Your task to perform on an android device: delete location history Image 0: 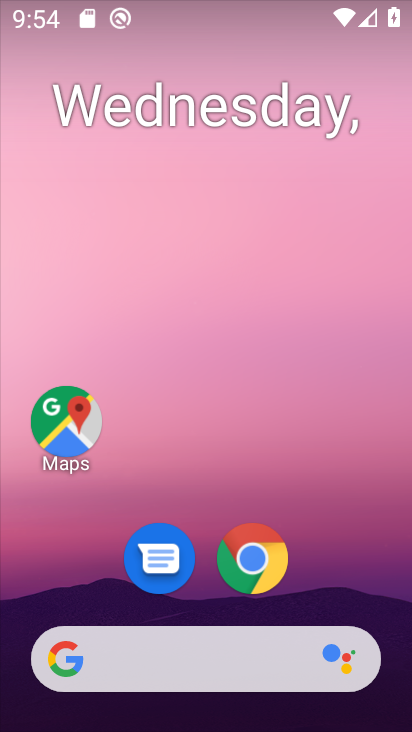
Step 0: drag from (380, 585) to (379, 105)
Your task to perform on an android device: delete location history Image 1: 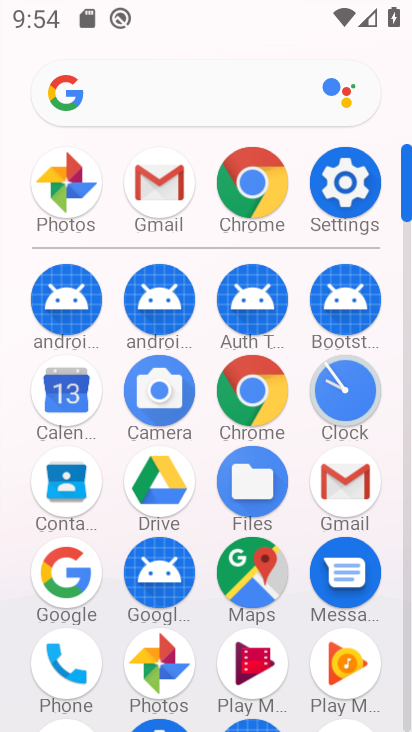
Step 1: click (249, 570)
Your task to perform on an android device: delete location history Image 2: 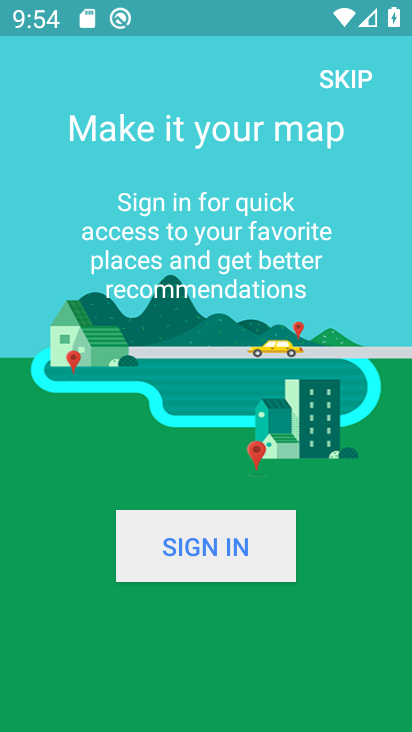
Step 2: click (347, 79)
Your task to perform on an android device: delete location history Image 3: 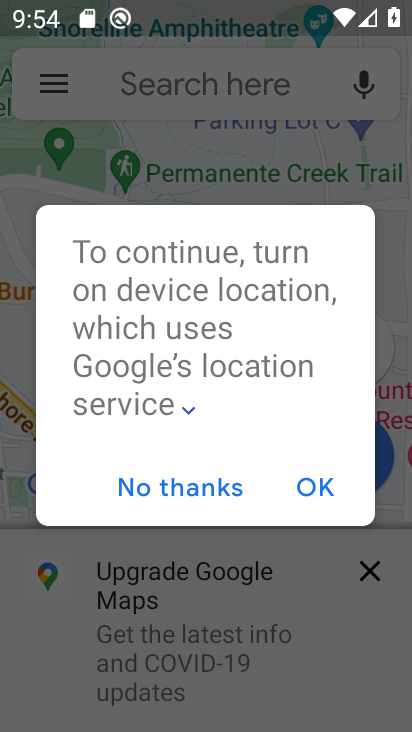
Step 3: click (205, 497)
Your task to perform on an android device: delete location history Image 4: 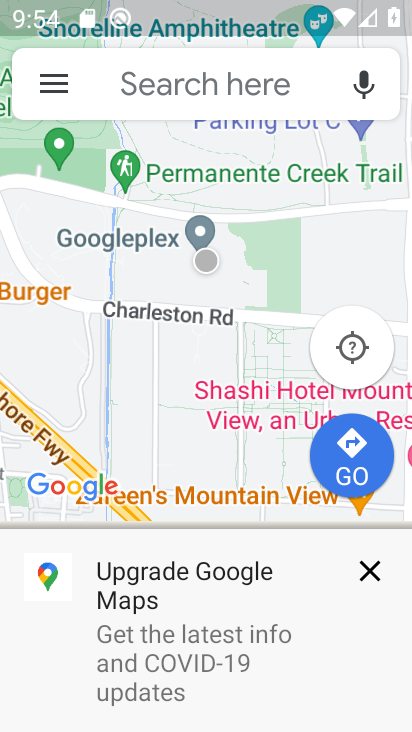
Step 4: click (57, 81)
Your task to perform on an android device: delete location history Image 5: 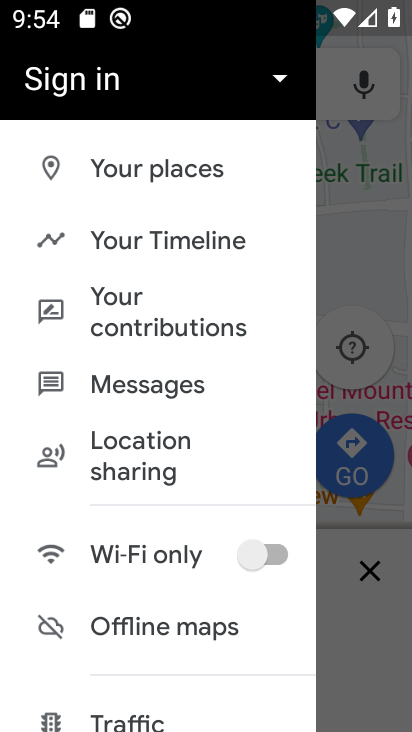
Step 5: click (143, 245)
Your task to perform on an android device: delete location history Image 6: 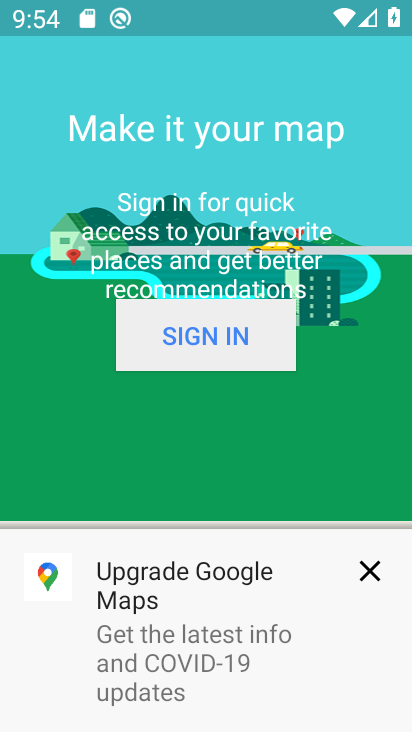
Step 6: click (368, 572)
Your task to perform on an android device: delete location history Image 7: 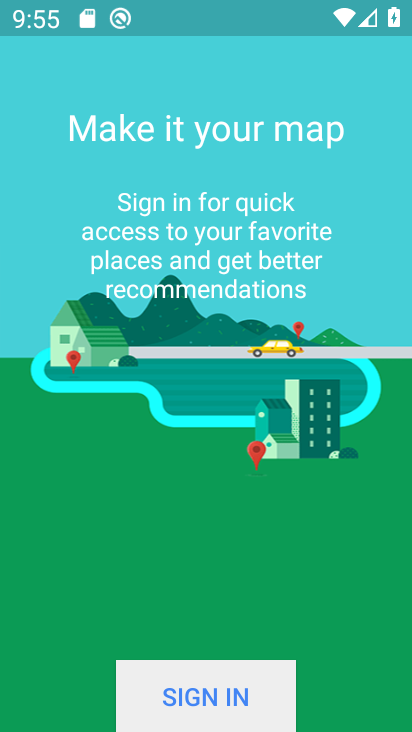
Step 7: task complete